Your task to perform on an android device: move an email to a new category in the gmail app Image 0: 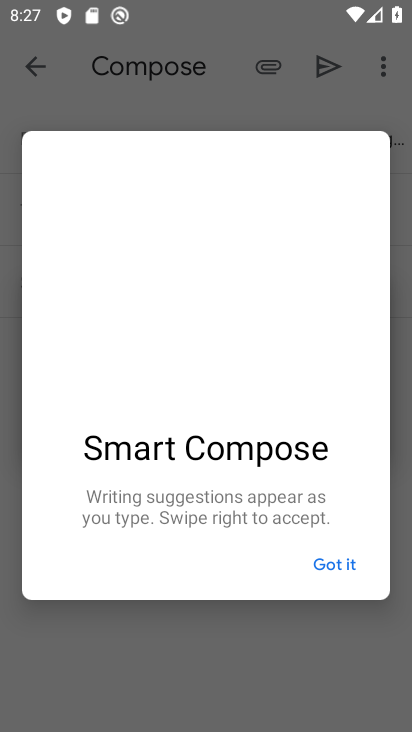
Step 0: press home button
Your task to perform on an android device: move an email to a new category in the gmail app Image 1: 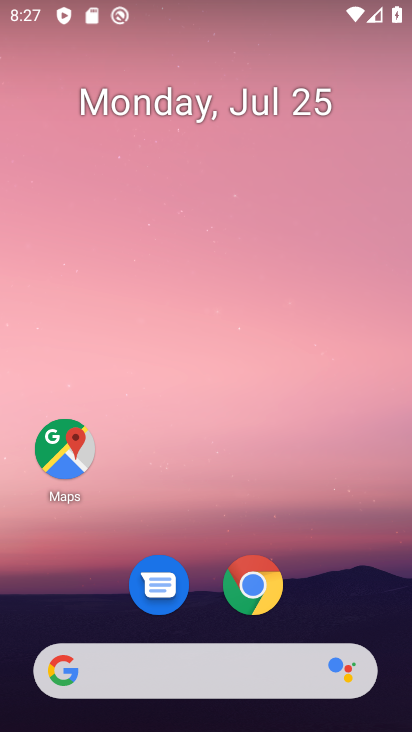
Step 1: drag from (109, 681) to (295, 181)
Your task to perform on an android device: move an email to a new category in the gmail app Image 2: 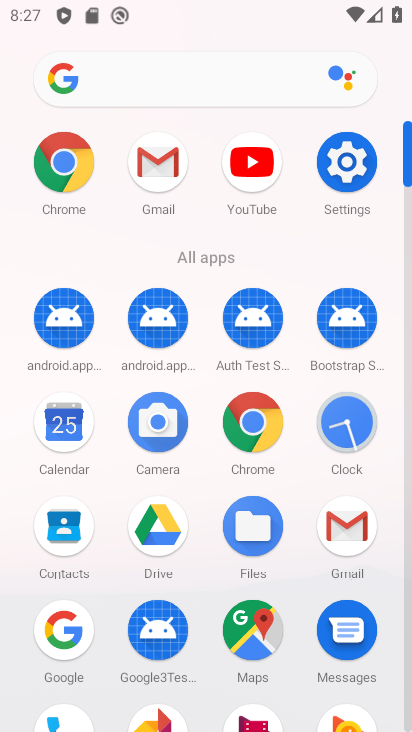
Step 2: click (150, 179)
Your task to perform on an android device: move an email to a new category in the gmail app Image 3: 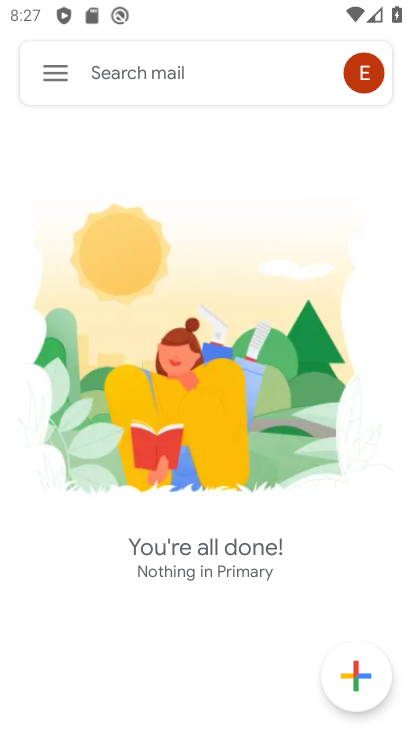
Step 3: click (51, 77)
Your task to perform on an android device: move an email to a new category in the gmail app Image 4: 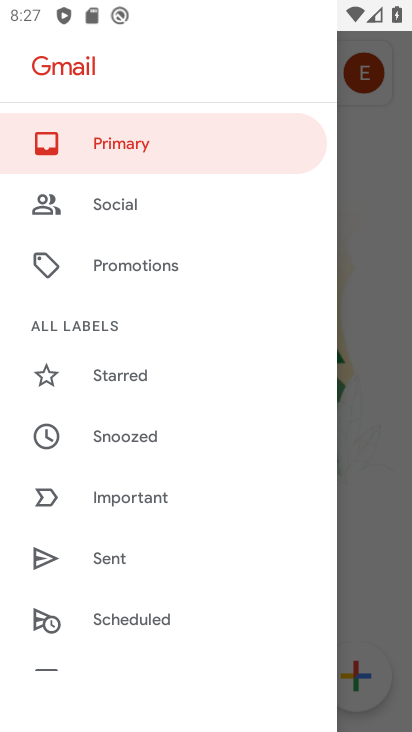
Step 4: click (163, 493)
Your task to perform on an android device: move an email to a new category in the gmail app Image 5: 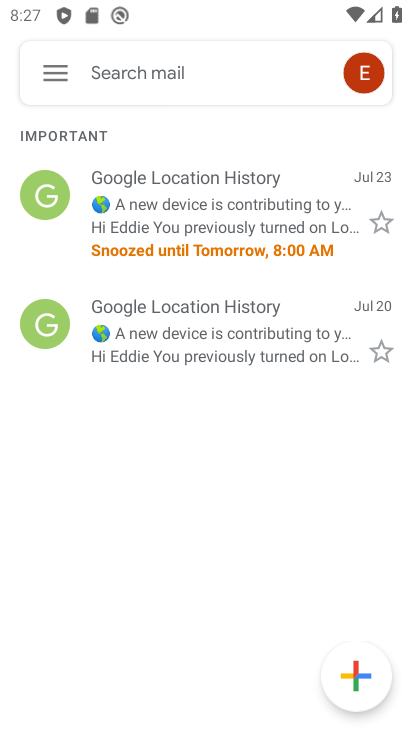
Step 5: click (55, 202)
Your task to perform on an android device: move an email to a new category in the gmail app Image 6: 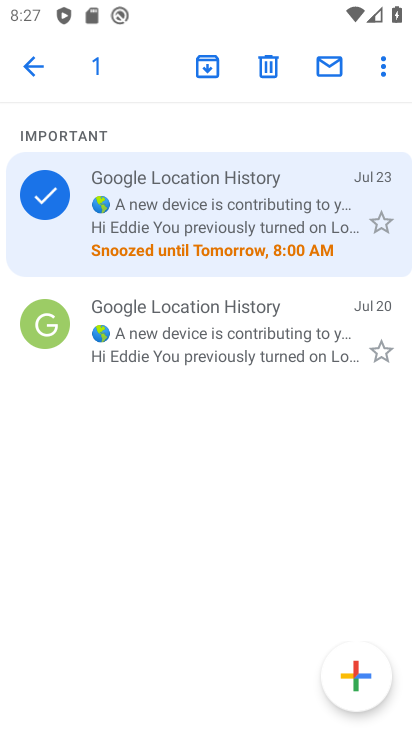
Step 6: click (378, 64)
Your task to perform on an android device: move an email to a new category in the gmail app Image 7: 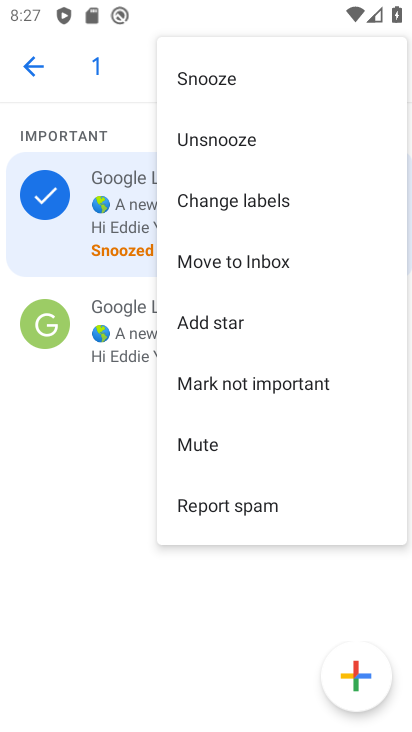
Step 7: click (266, 264)
Your task to perform on an android device: move an email to a new category in the gmail app Image 8: 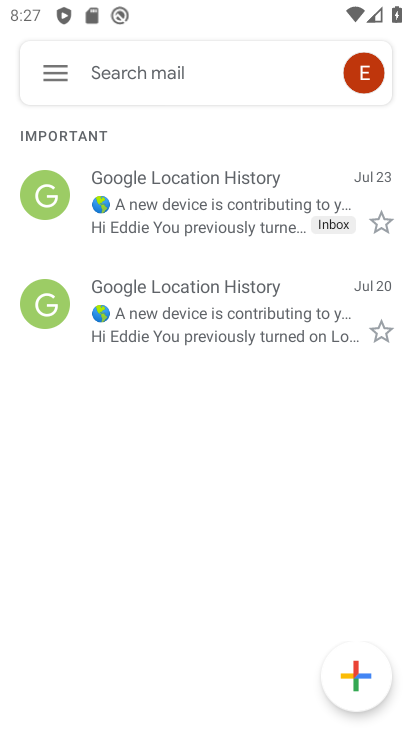
Step 8: task complete